Your task to perform on an android device: Check the news Image 0: 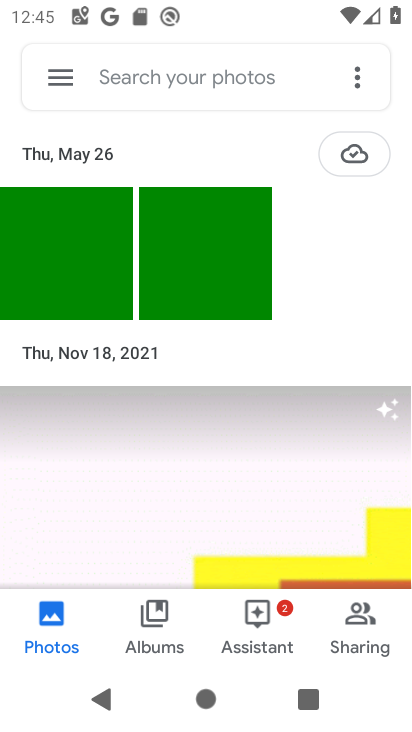
Step 0: press home button
Your task to perform on an android device: Check the news Image 1: 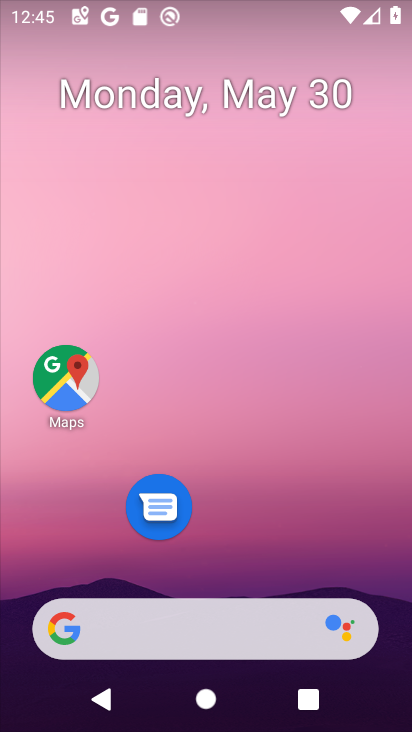
Step 1: drag from (349, 555) to (329, 82)
Your task to perform on an android device: Check the news Image 2: 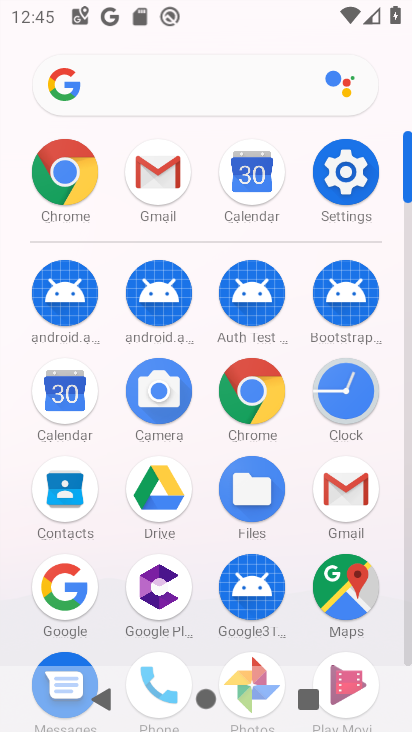
Step 2: click (255, 387)
Your task to perform on an android device: Check the news Image 3: 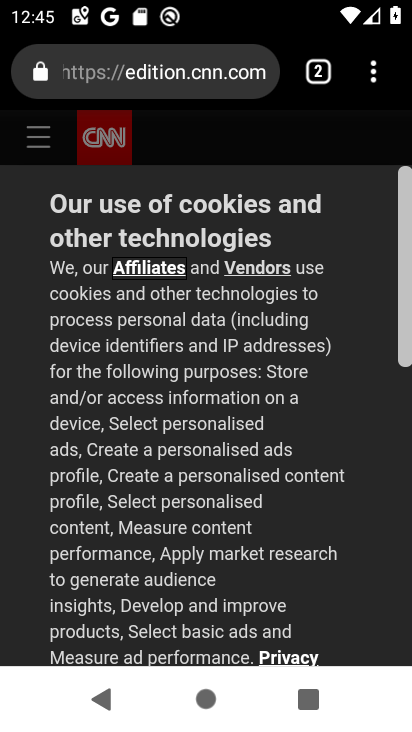
Step 3: click (217, 73)
Your task to perform on an android device: Check the news Image 4: 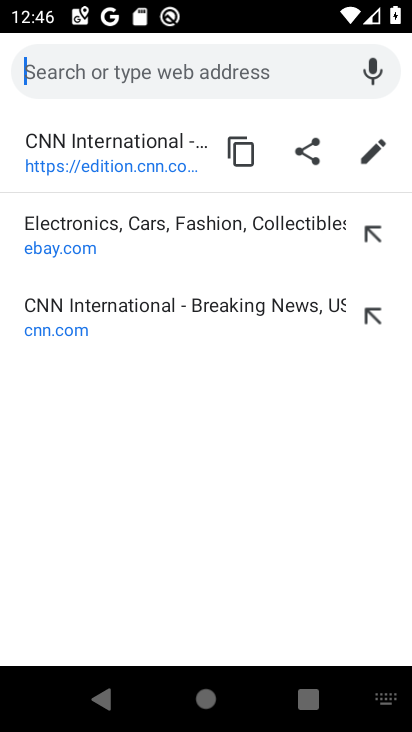
Step 4: type "Check the news"
Your task to perform on an android device: Check the news Image 5: 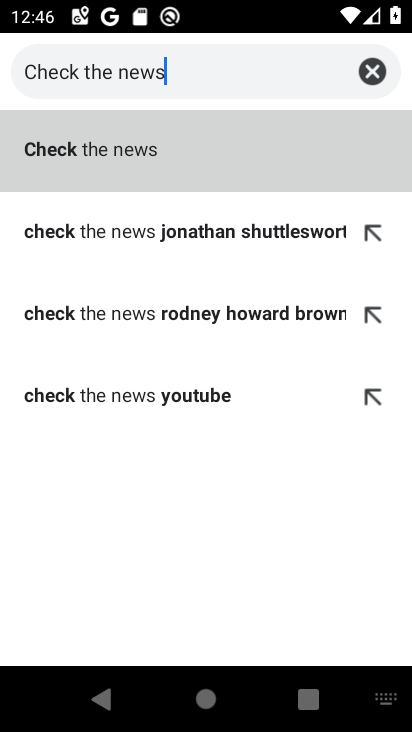
Step 5: click (114, 152)
Your task to perform on an android device: Check the news Image 6: 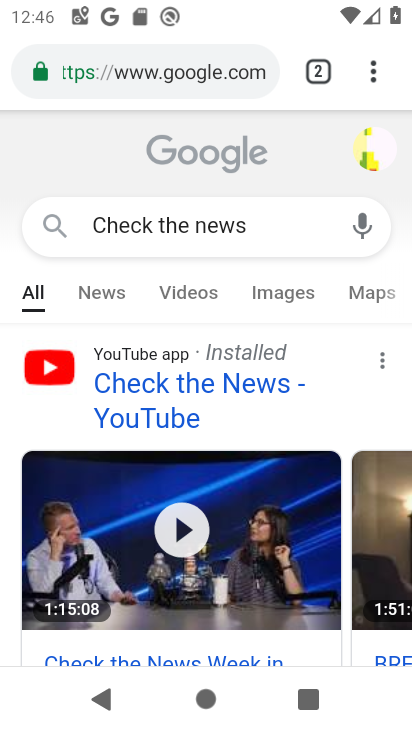
Step 6: task complete